Your task to perform on an android device: Search for Mexican restaurants on Maps Image 0: 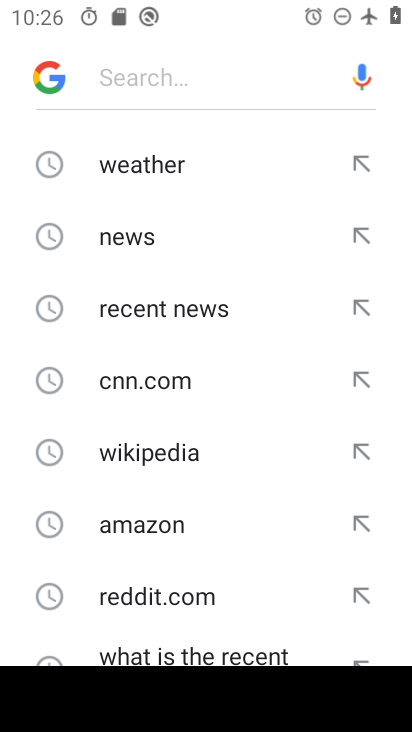
Step 0: press home button
Your task to perform on an android device: Search for Mexican restaurants on Maps Image 1: 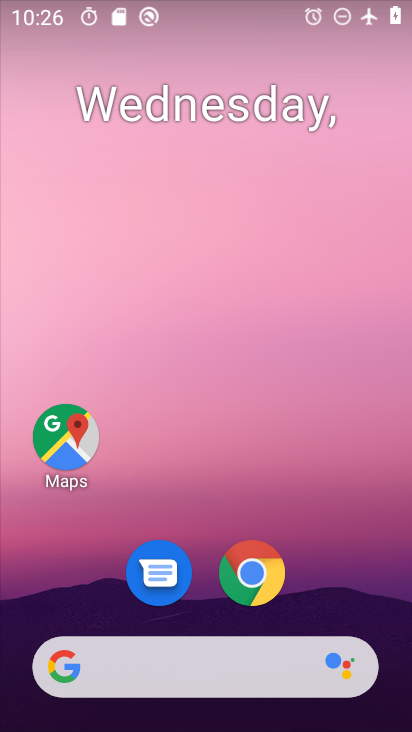
Step 1: click (81, 474)
Your task to perform on an android device: Search for Mexican restaurants on Maps Image 2: 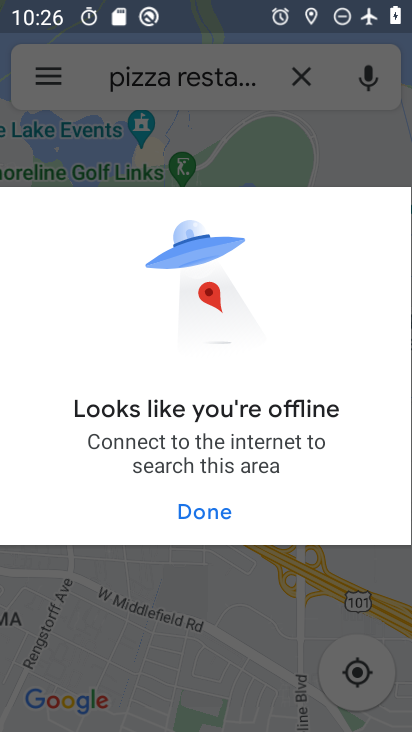
Step 2: click (212, 522)
Your task to perform on an android device: Search for Mexican restaurants on Maps Image 3: 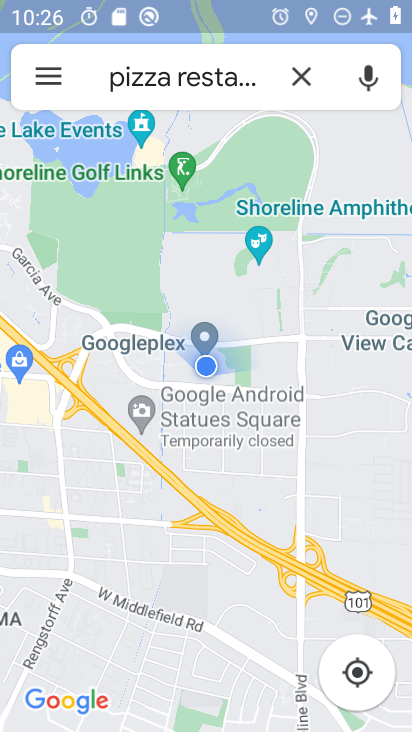
Step 3: click (308, 80)
Your task to perform on an android device: Search for Mexican restaurants on Maps Image 4: 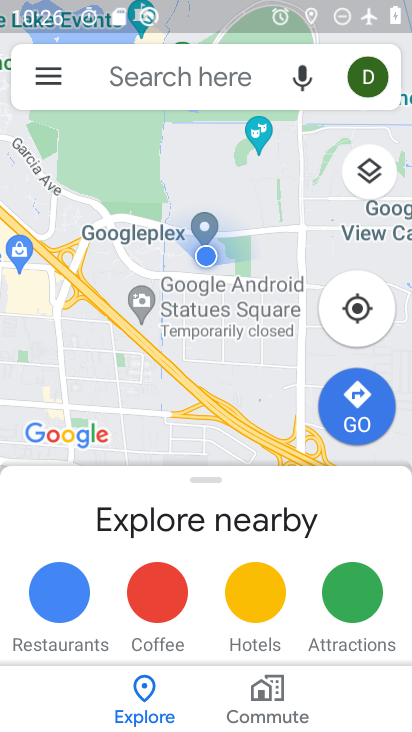
Step 4: click (248, 88)
Your task to perform on an android device: Search for Mexican restaurants on Maps Image 5: 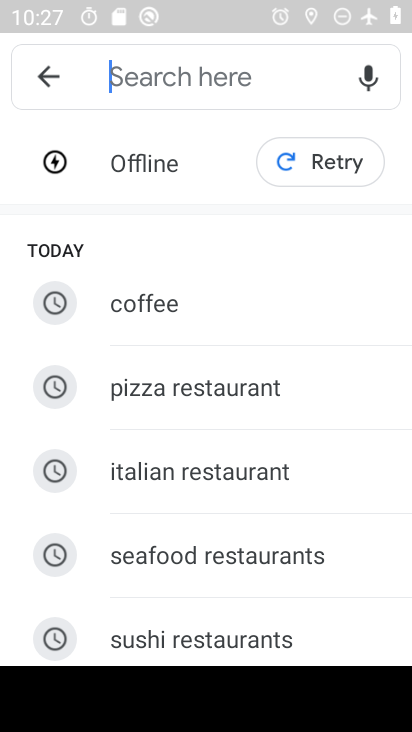
Step 5: type "mexican restaurants"
Your task to perform on an android device: Search for Mexican restaurants on Maps Image 6: 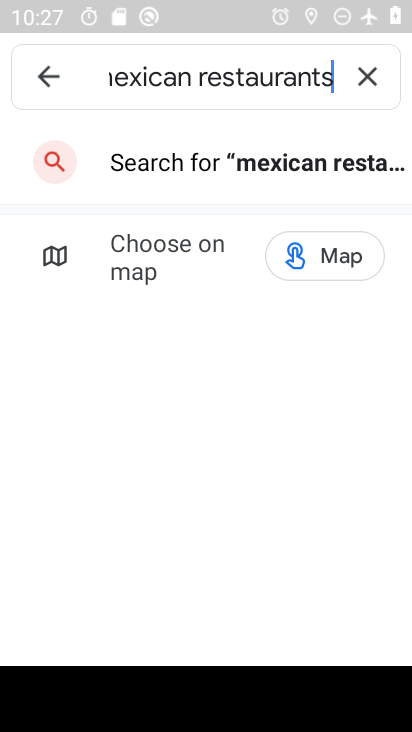
Step 6: click (361, 165)
Your task to perform on an android device: Search for Mexican restaurants on Maps Image 7: 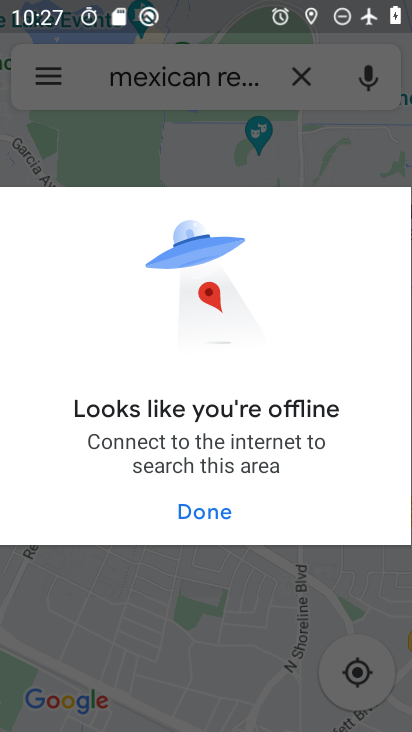
Step 7: task complete